Your task to perform on an android device: Search for vegetarian restaurants on Maps Image 0: 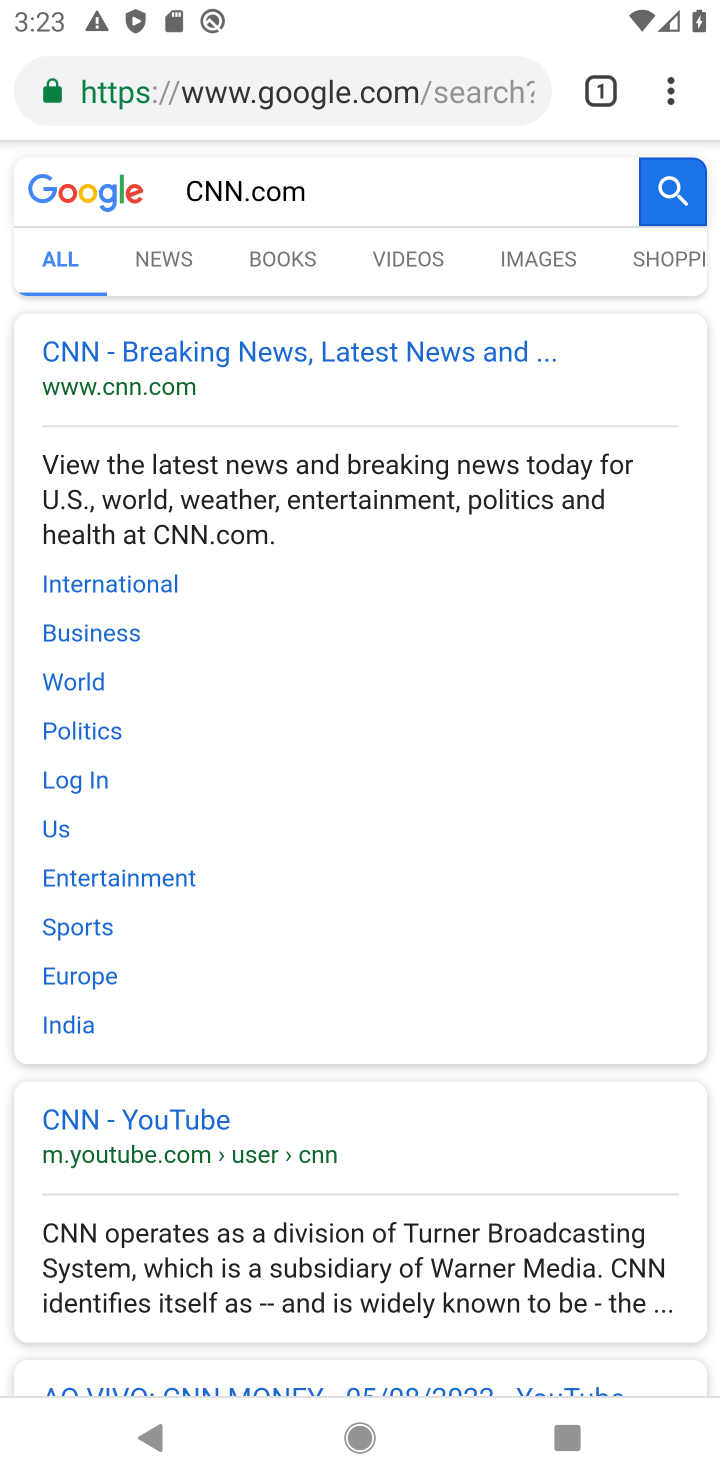
Step 0: press home button
Your task to perform on an android device: Search for vegetarian restaurants on Maps Image 1: 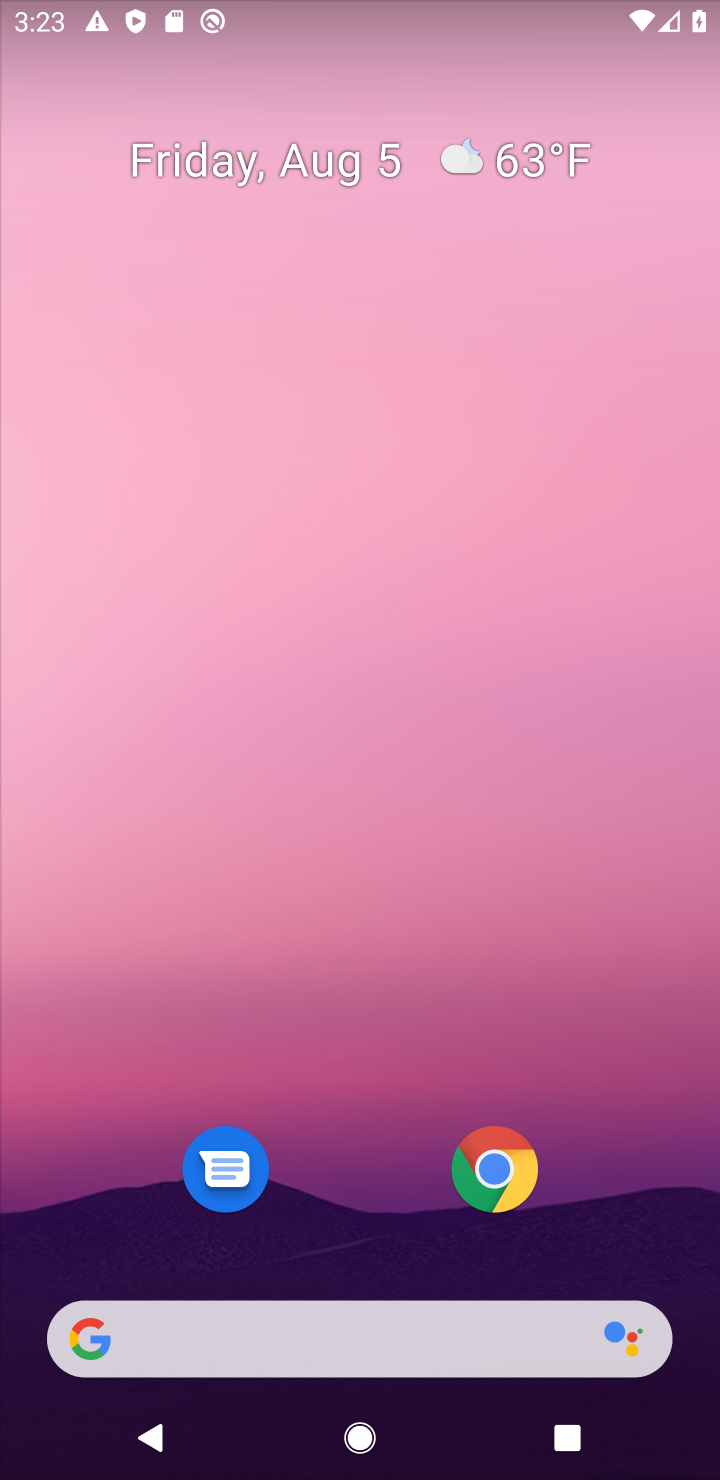
Step 1: drag from (663, 1217) to (554, 411)
Your task to perform on an android device: Search for vegetarian restaurants on Maps Image 2: 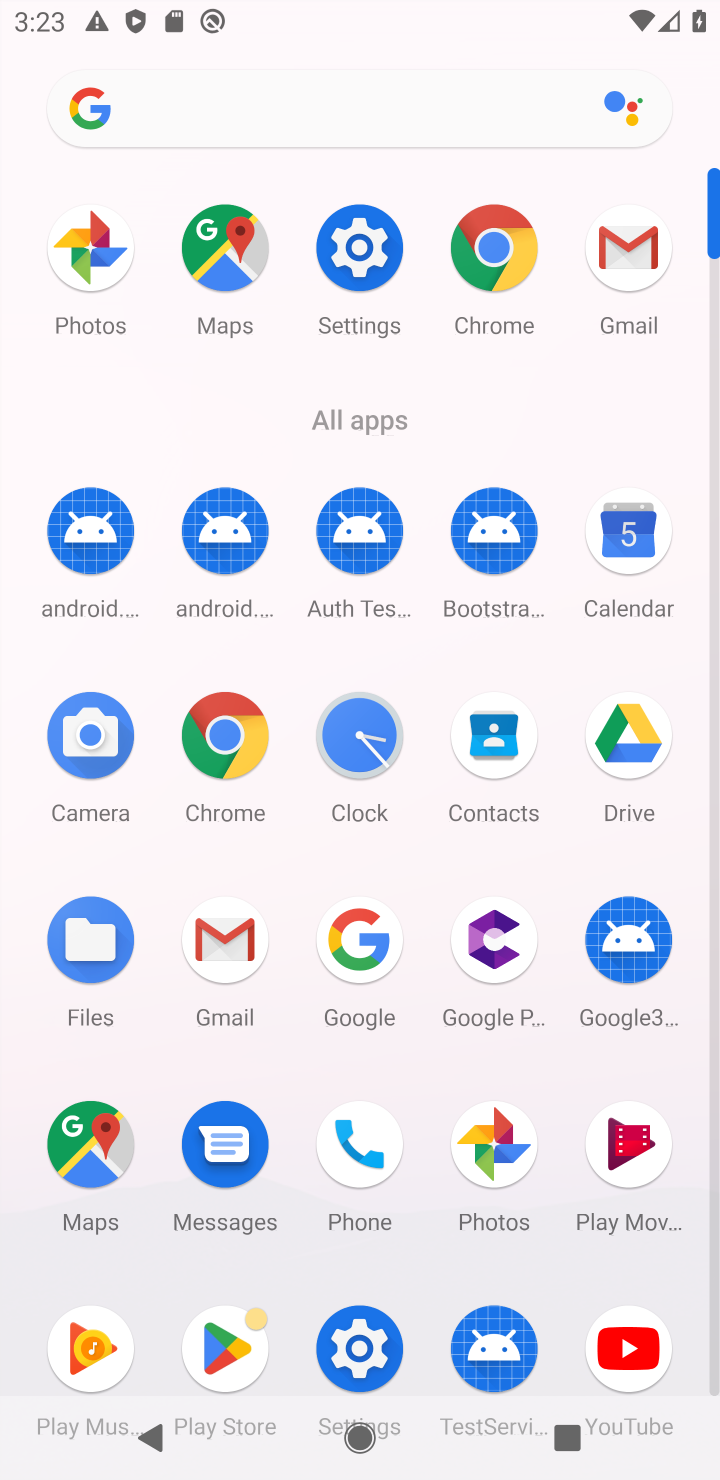
Step 2: click (102, 1155)
Your task to perform on an android device: Search for vegetarian restaurants on Maps Image 3: 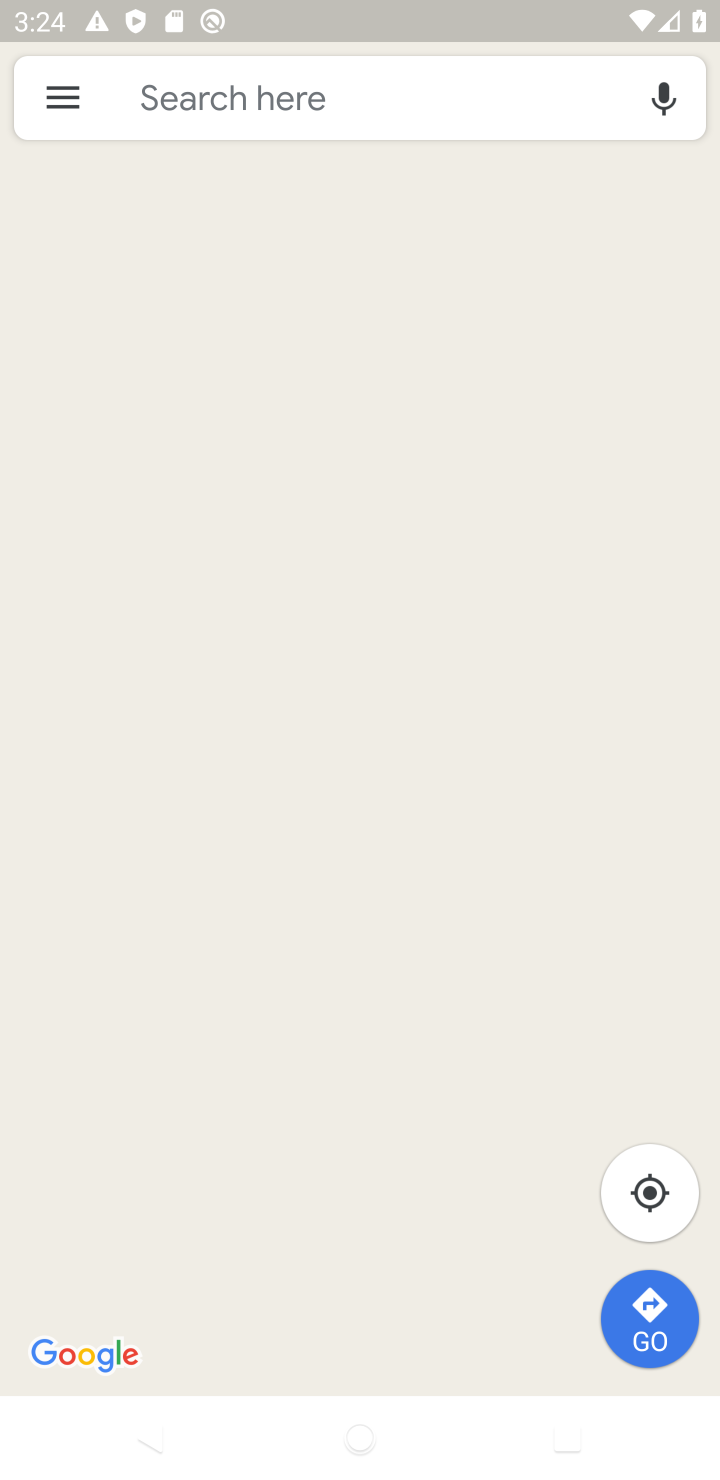
Step 3: click (216, 102)
Your task to perform on an android device: Search for vegetarian restaurants on Maps Image 4: 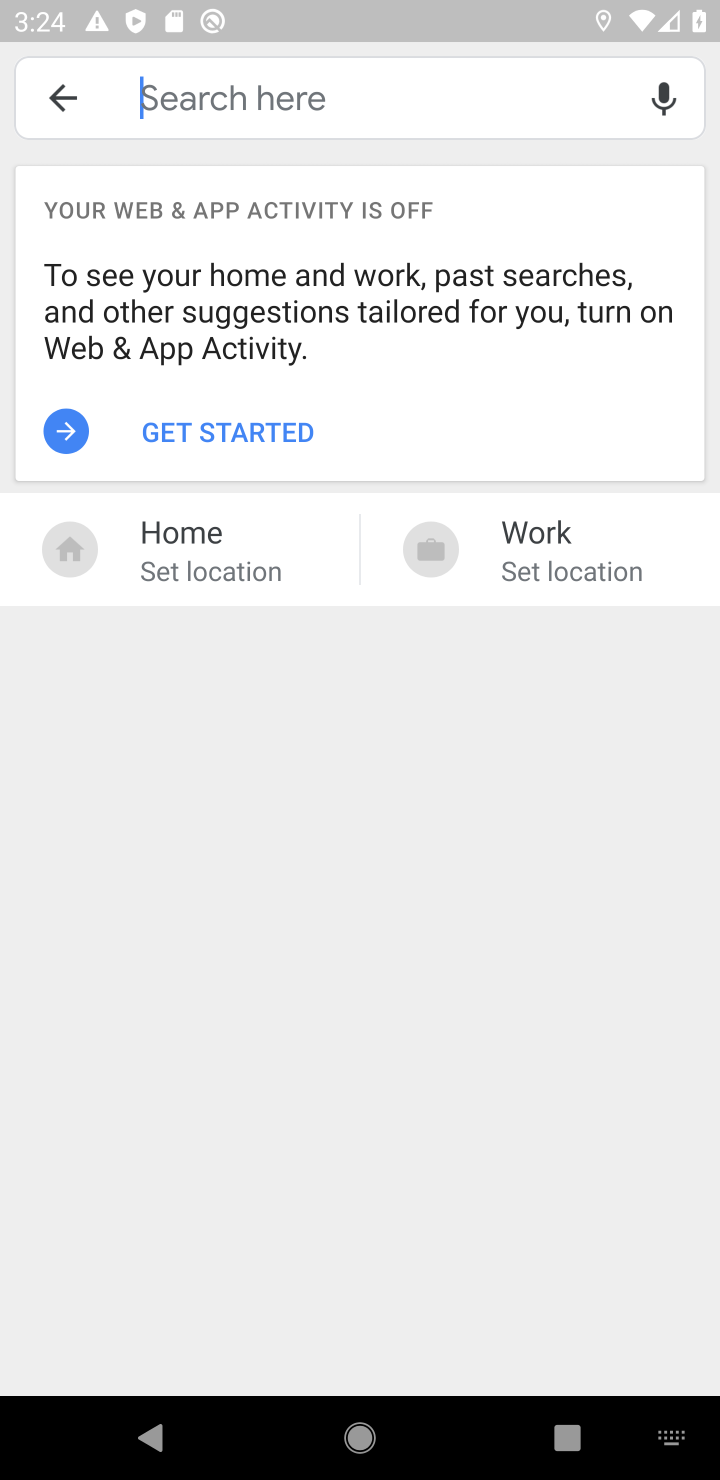
Step 4: type "vegetarian restaurants"
Your task to perform on an android device: Search for vegetarian restaurants on Maps Image 5: 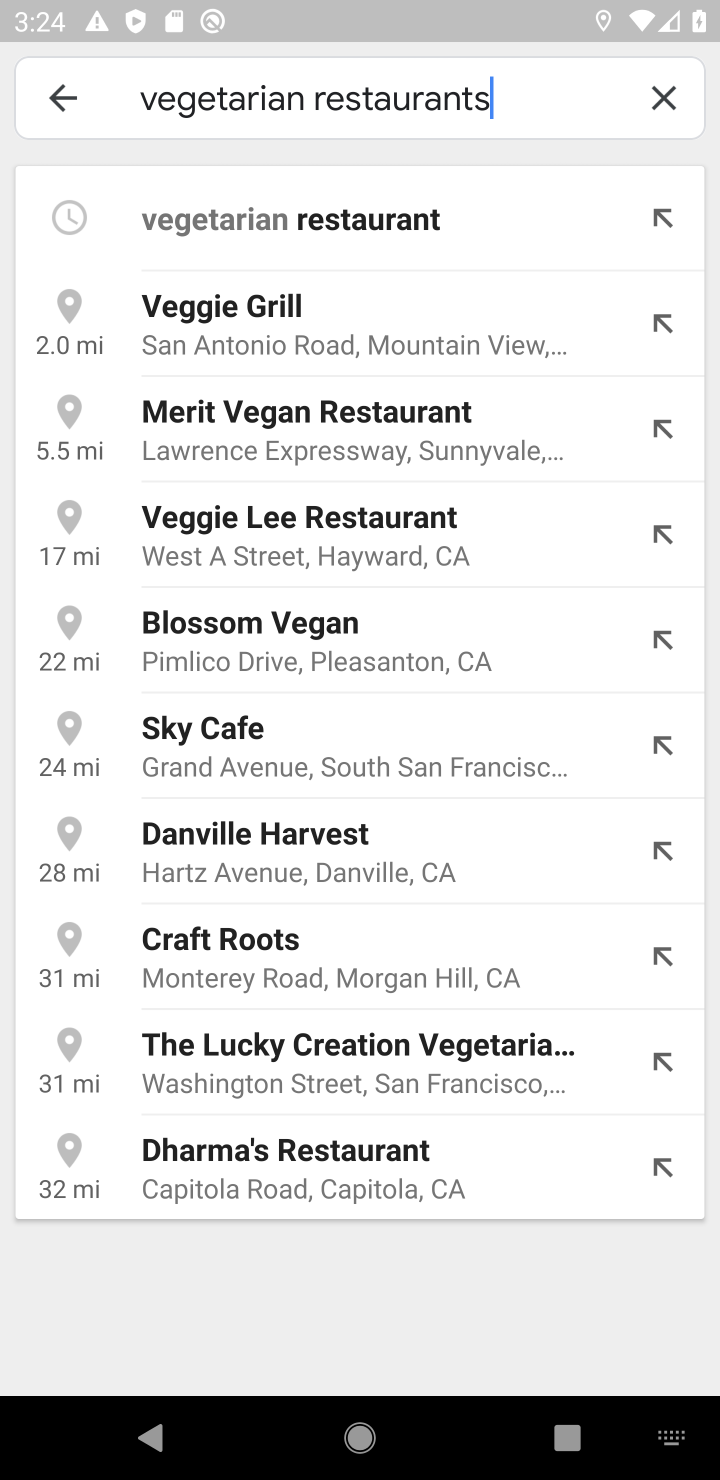
Step 5: click (383, 213)
Your task to perform on an android device: Search for vegetarian restaurants on Maps Image 6: 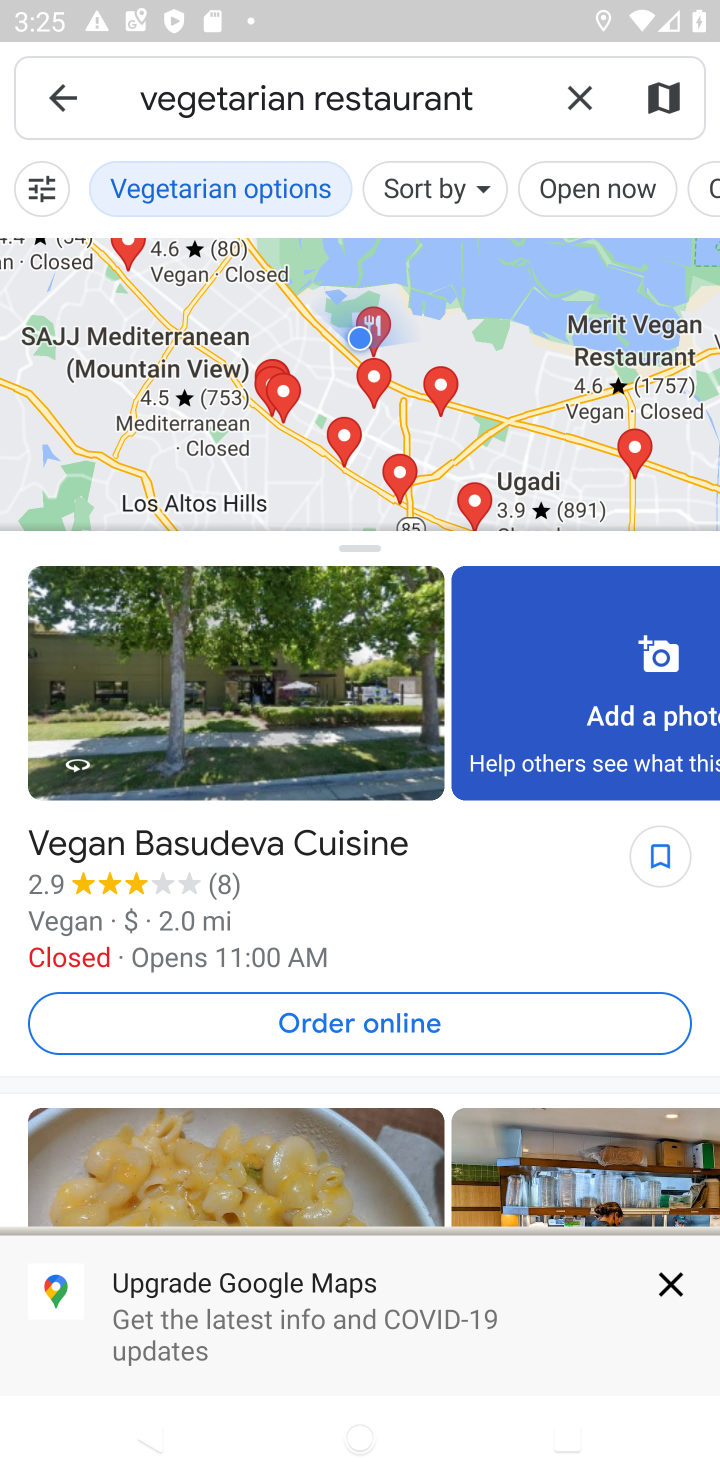
Step 6: task complete